Your task to perform on an android device: set an alarm Image 0: 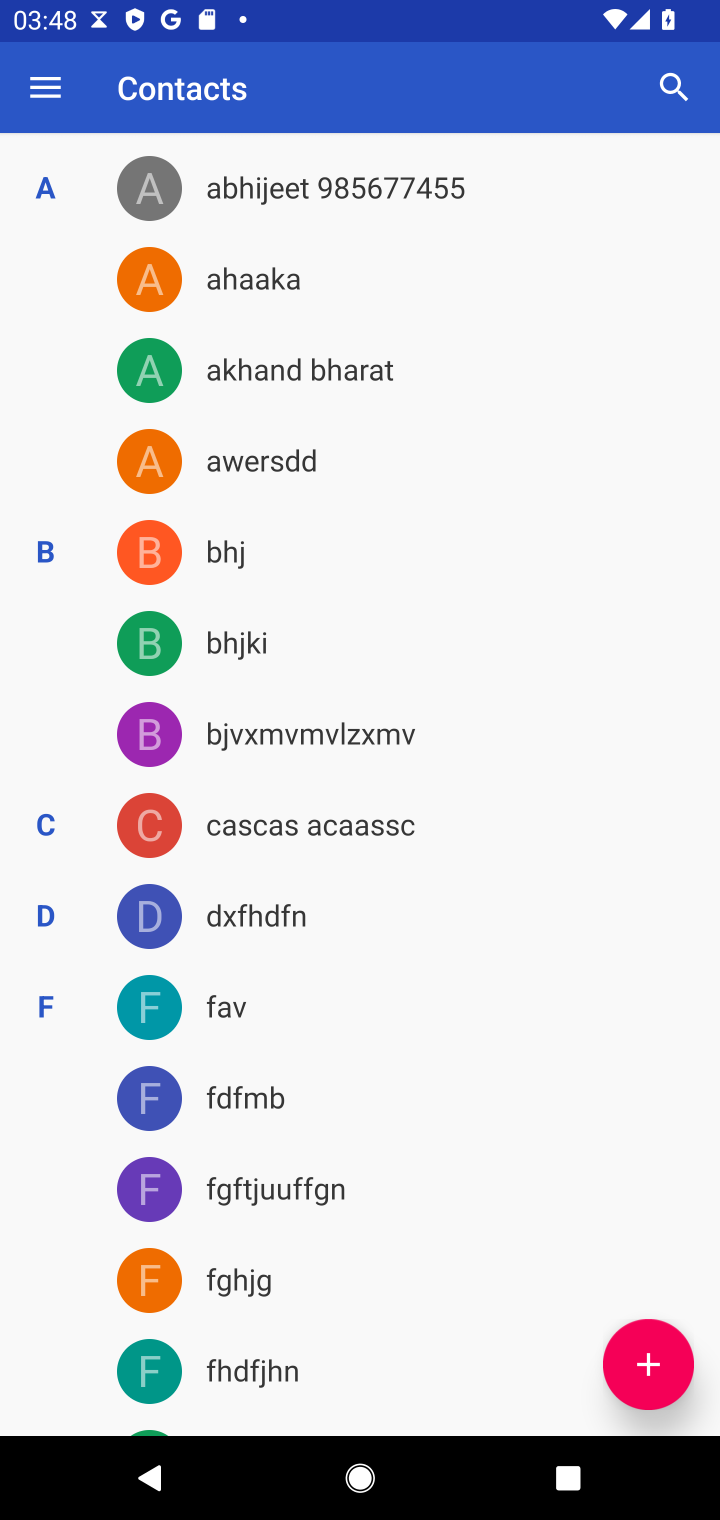
Step 0: press home button
Your task to perform on an android device: set an alarm Image 1: 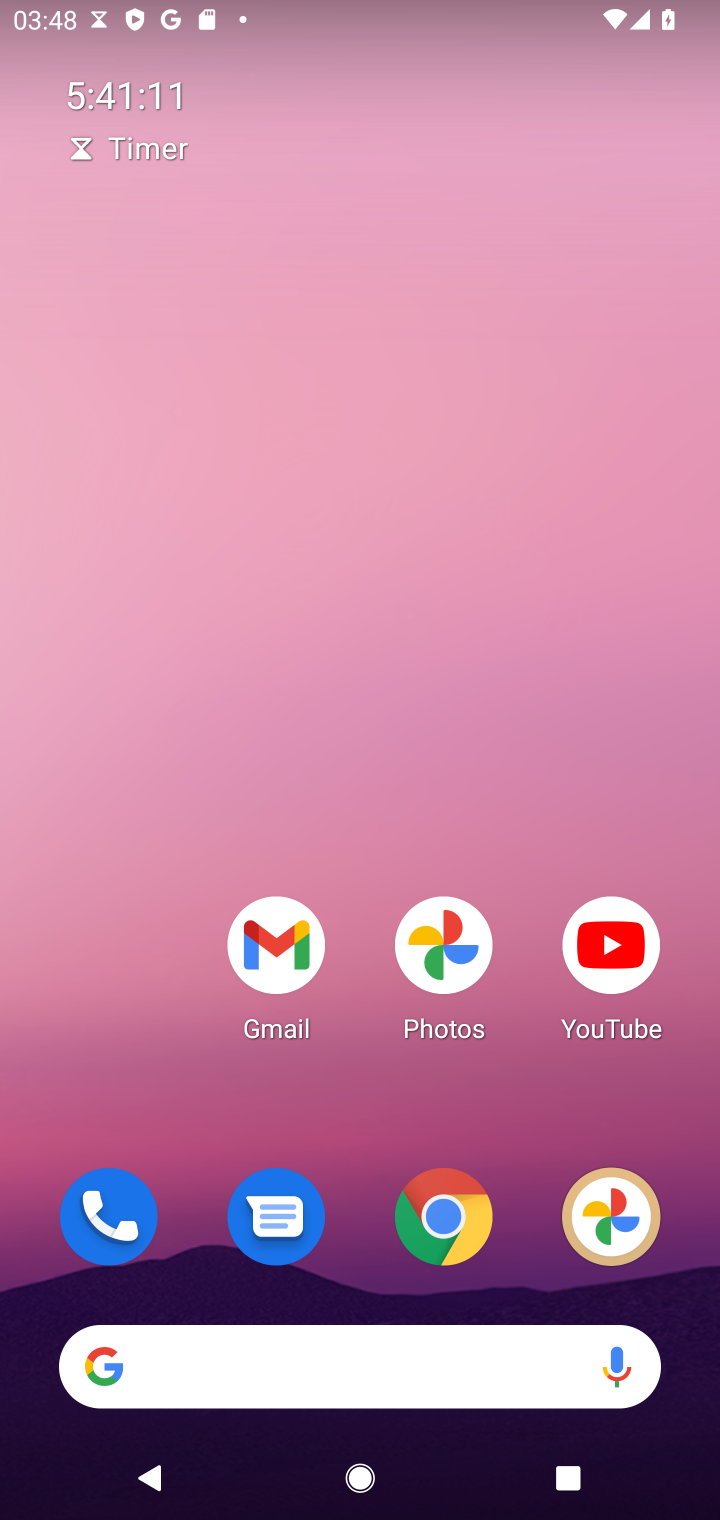
Step 1: drag from (375, 1113) to (321, 326)
Your task to perform on an android device: set an alarm Image 2: 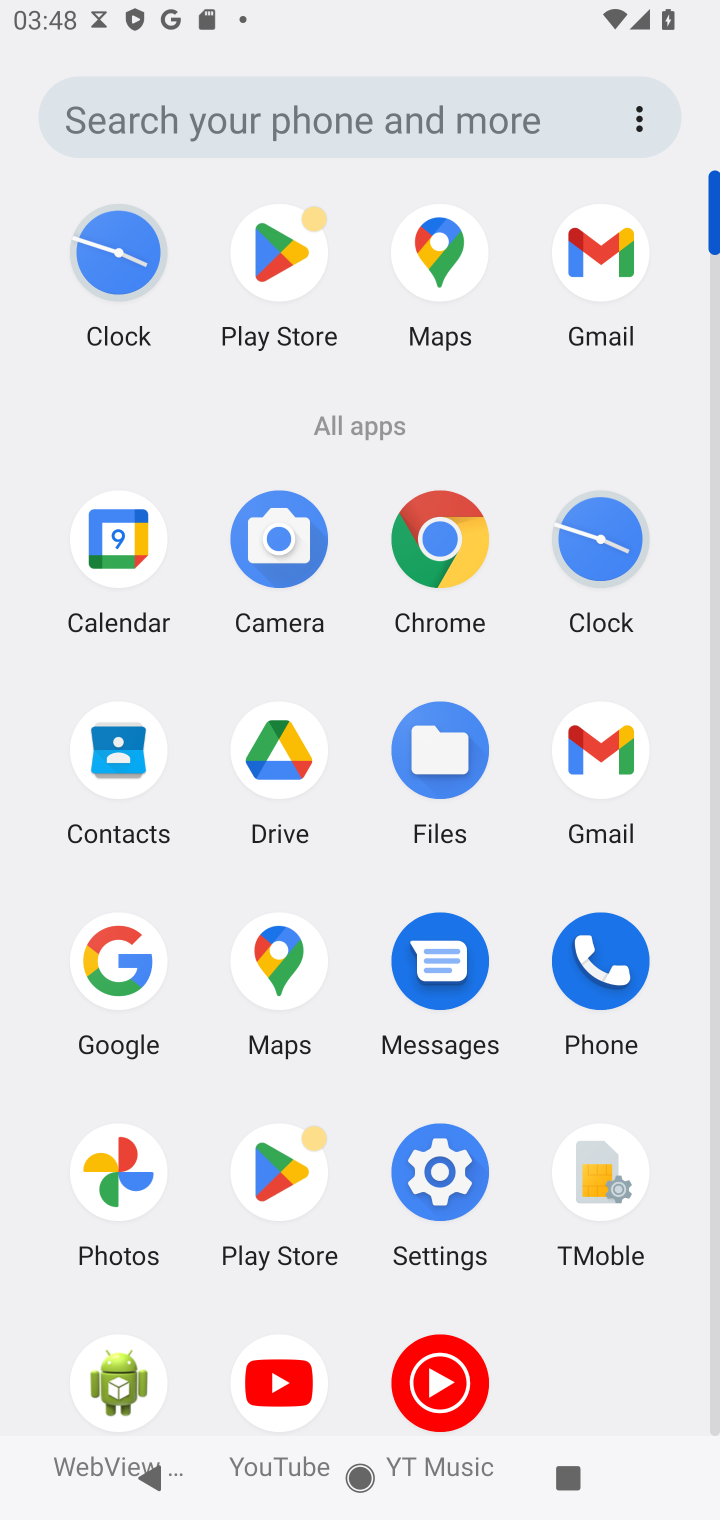
Step 2: click (607, 518)
Your task to perform on an android device: set an alarm Image 3: 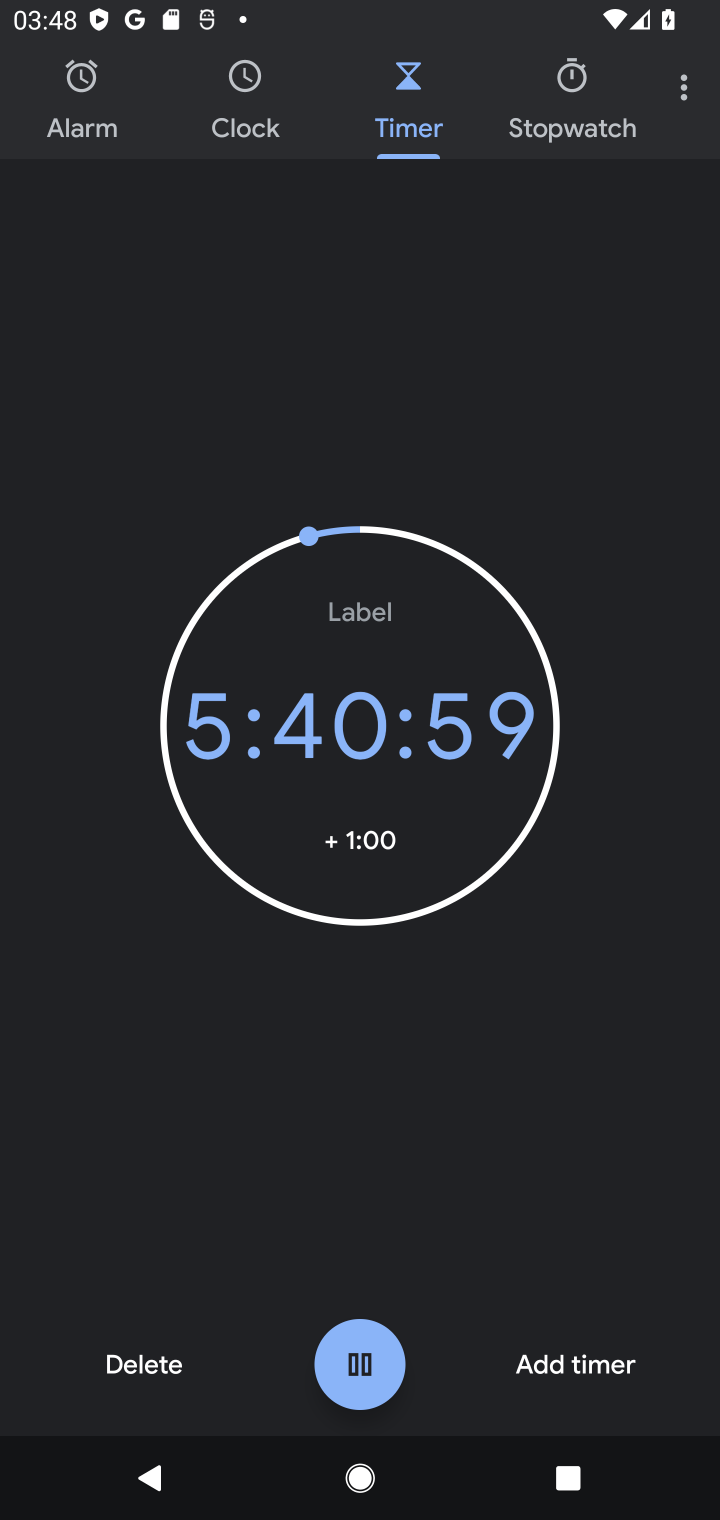
Step 3: click (103, 102)
Your task to perform on an android device: set an alarm Image 4: 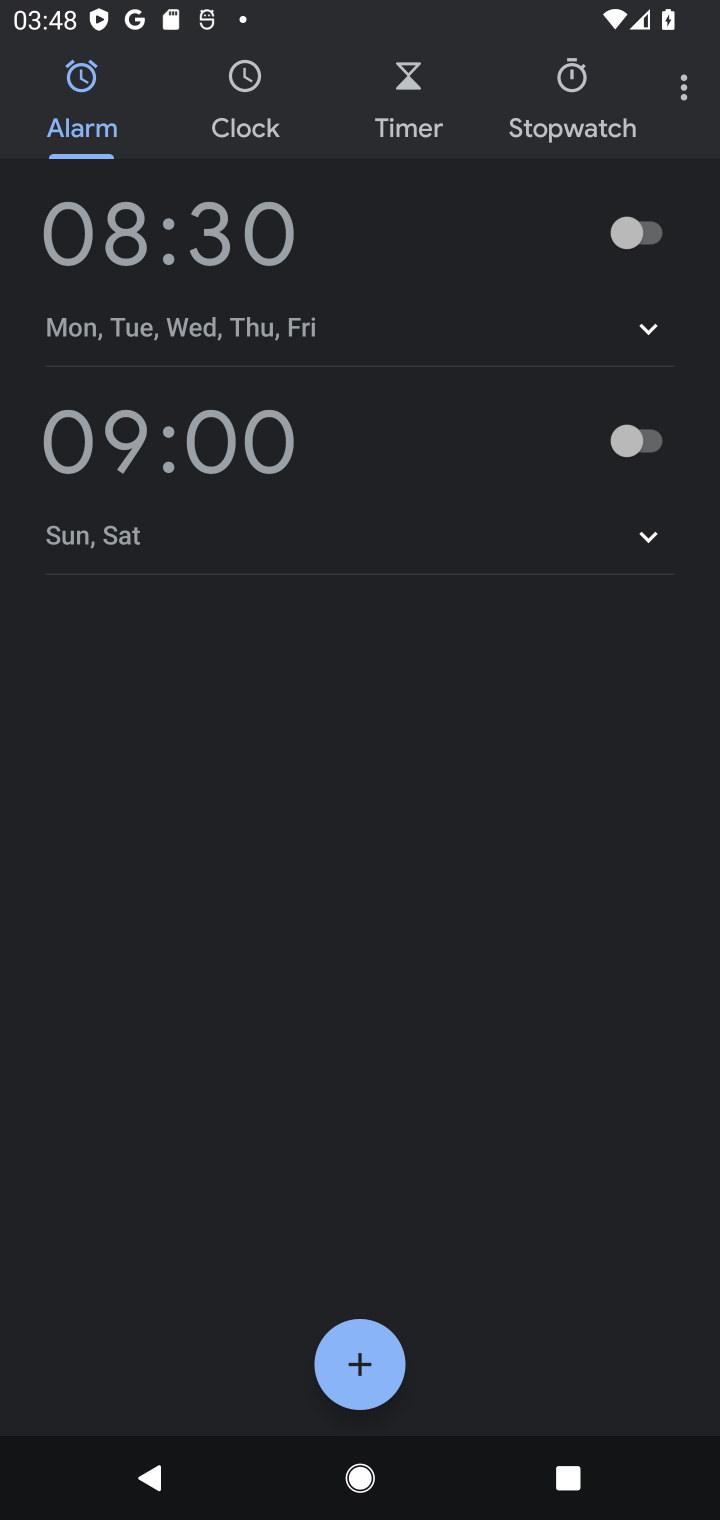
Step 4: click (345, 1390)
Your task to perform on an android device: set an alarm Image 5: 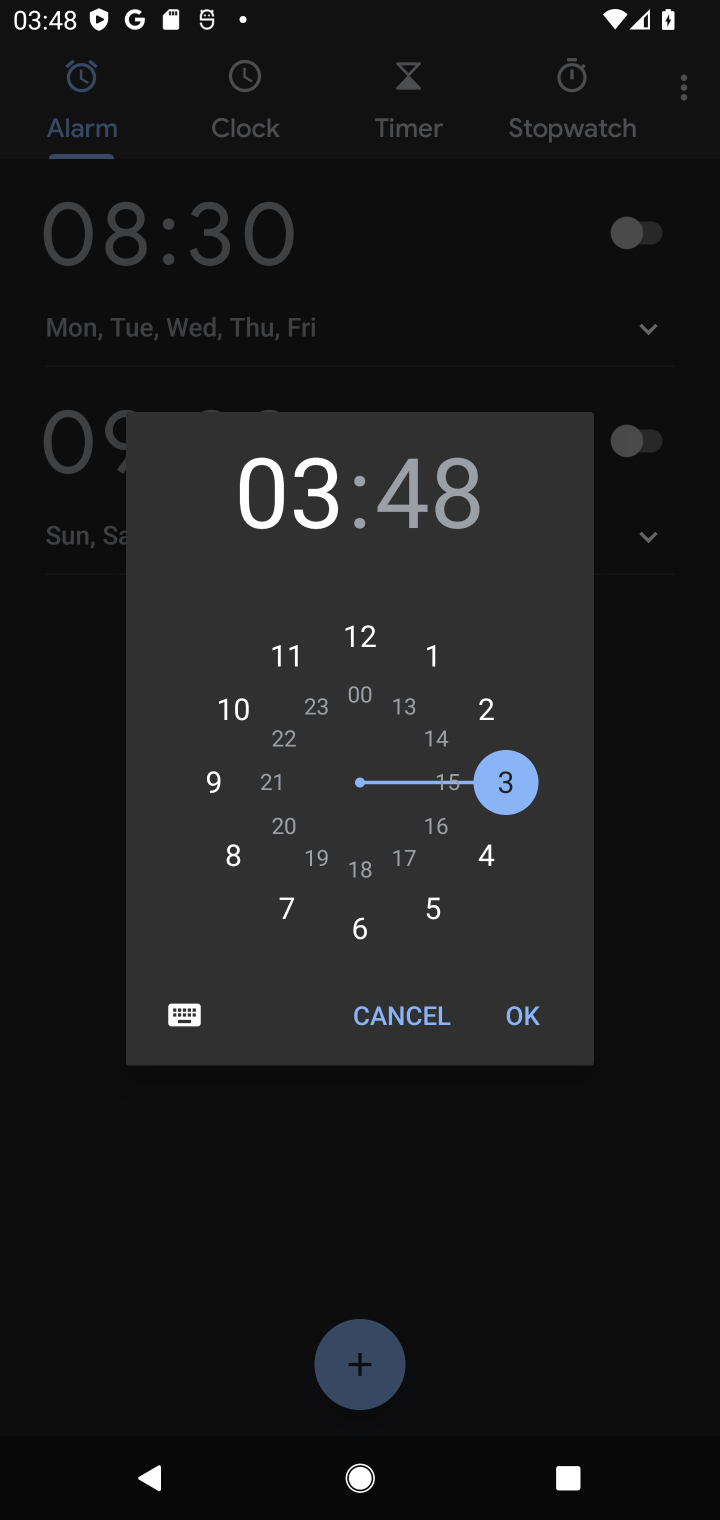
Step 5: click (522, 996)
Your task to perform on an android device: set an alarm Image 6: 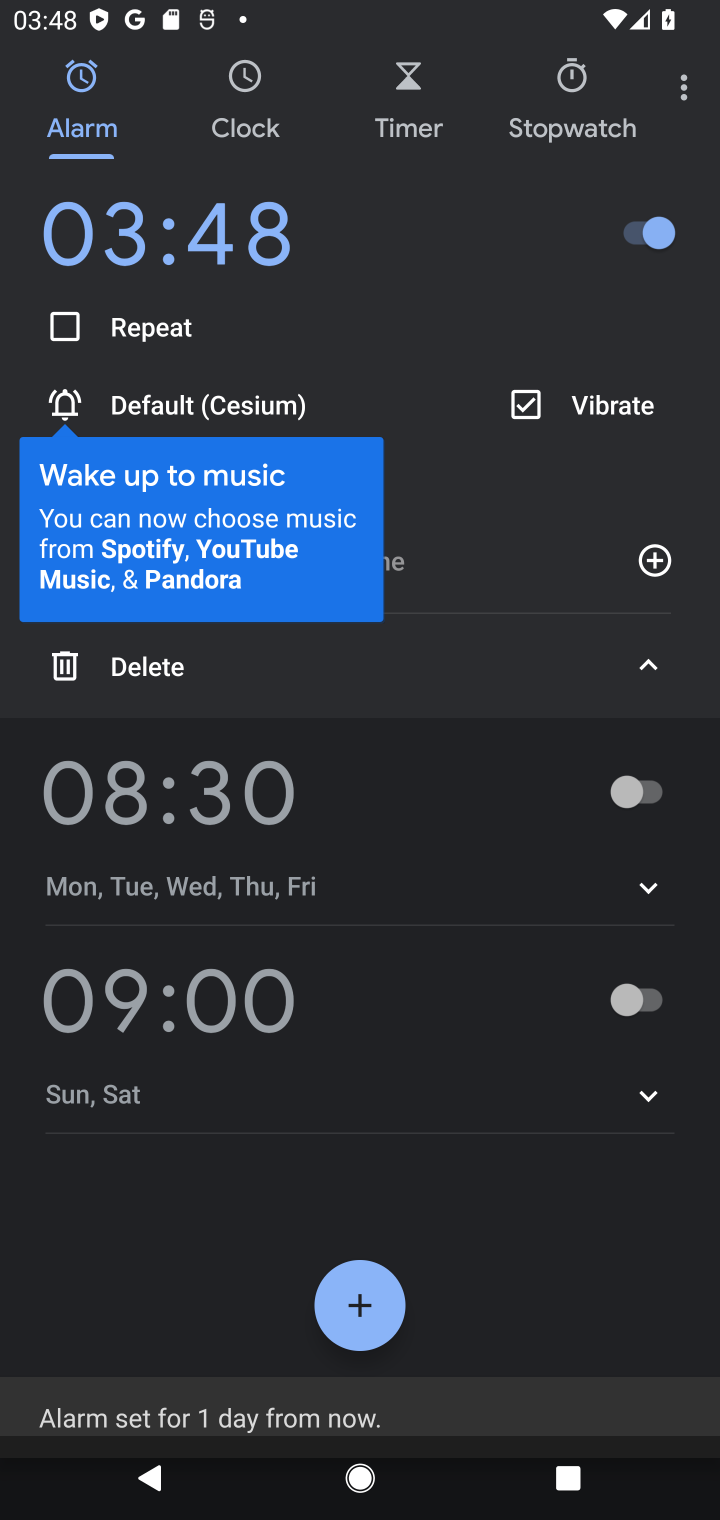
Step 6: task complete